Your task to perform on an android device: Open the web browser Image 0: 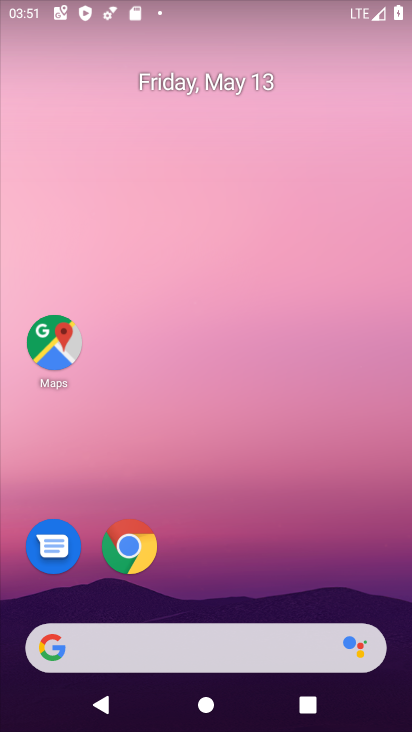
Step 0: click (227, 643)
Your task to perform on an android device: Open the web browser Image 1: 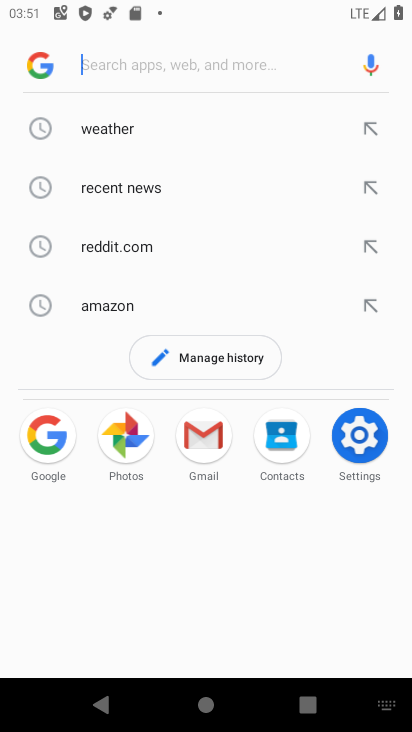
Step 1: task complete